Your task to perform on an android device: toggle translation in the chrome app Image 0: 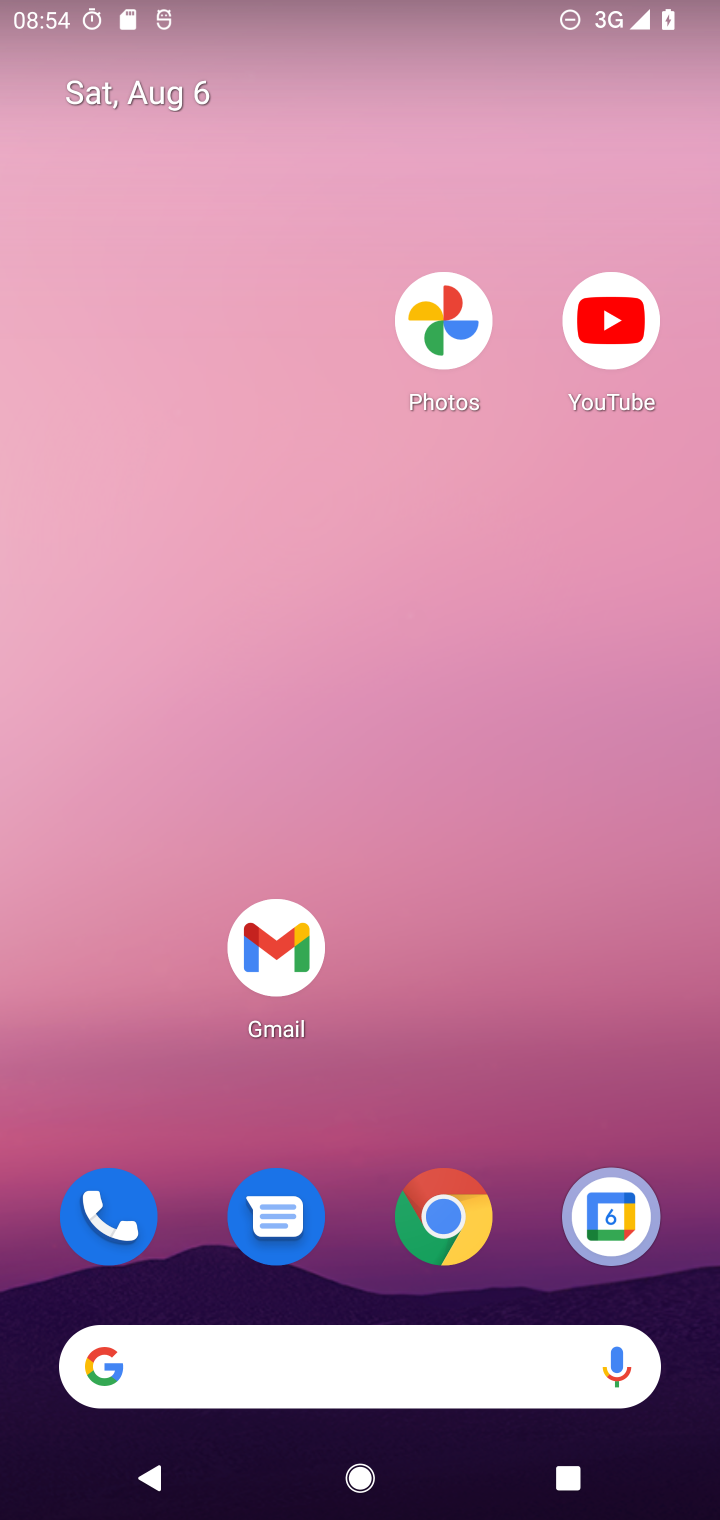
Step 0: drag from (424, 887) to (407, 86)
Your task to perform on an android device: toggle translation in the chrome app Image 1: 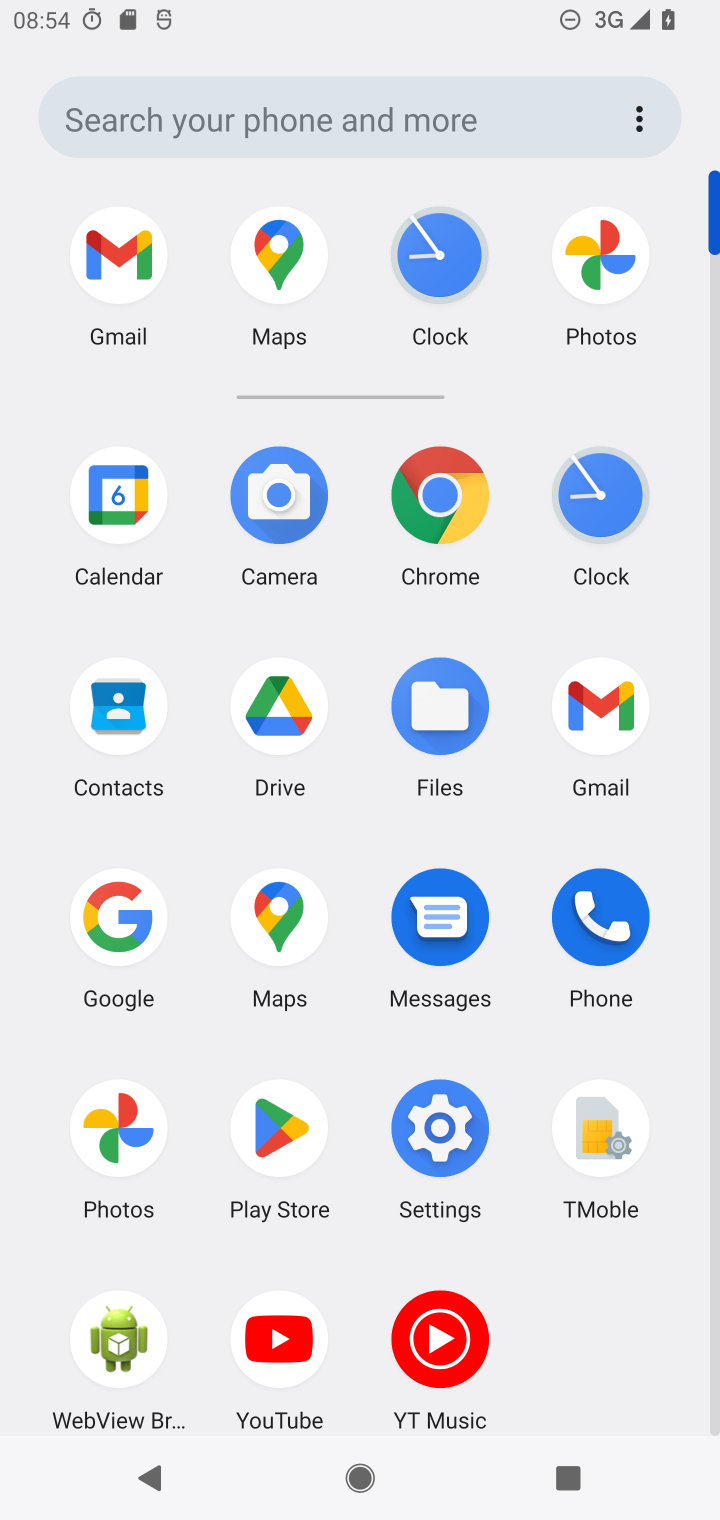
Step 1: click (447, 500)
Your task to perform on an android device: toggle translation in the chrome app Image 2: 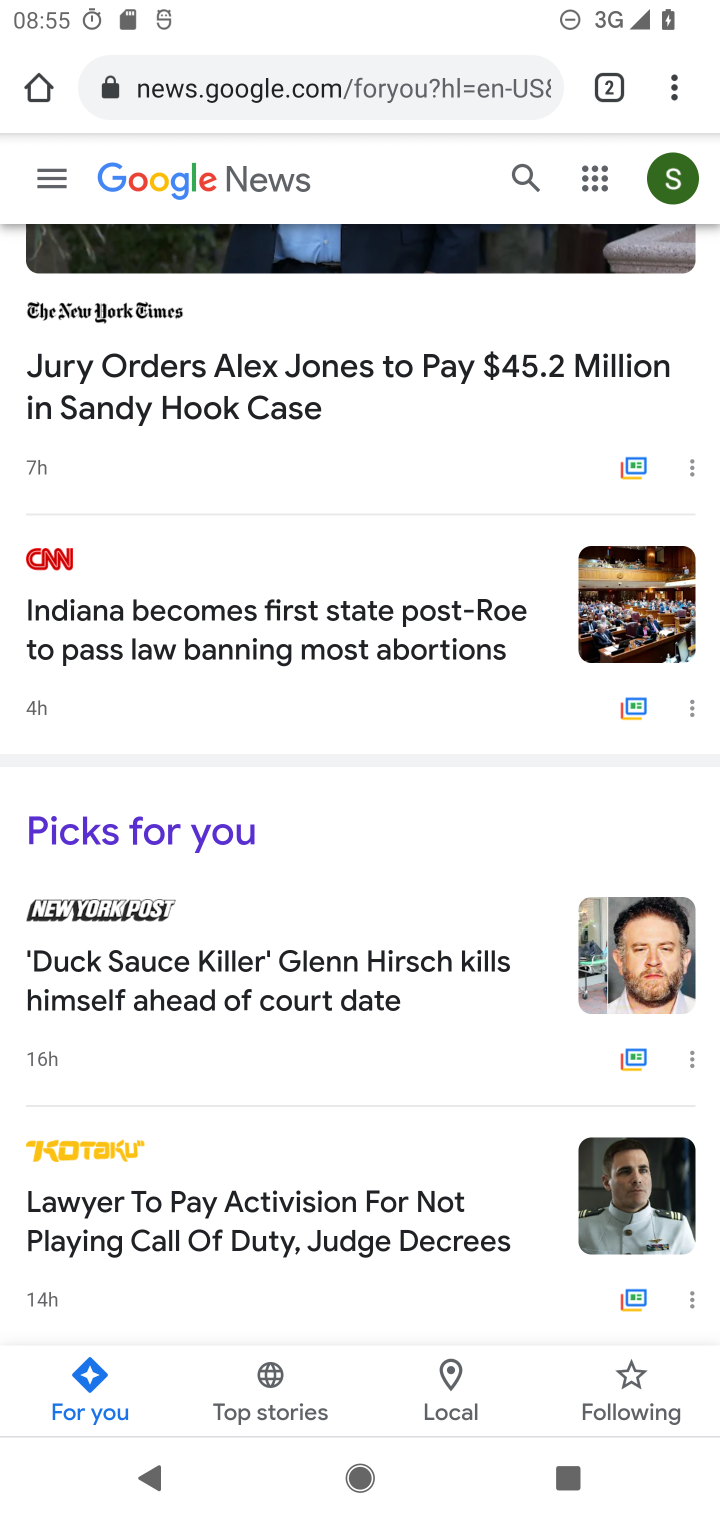
Step 2: drag from (683, 66) to (418, 1200)
Your task to perform on an android device: toggle translation in the chrome app Image 3: 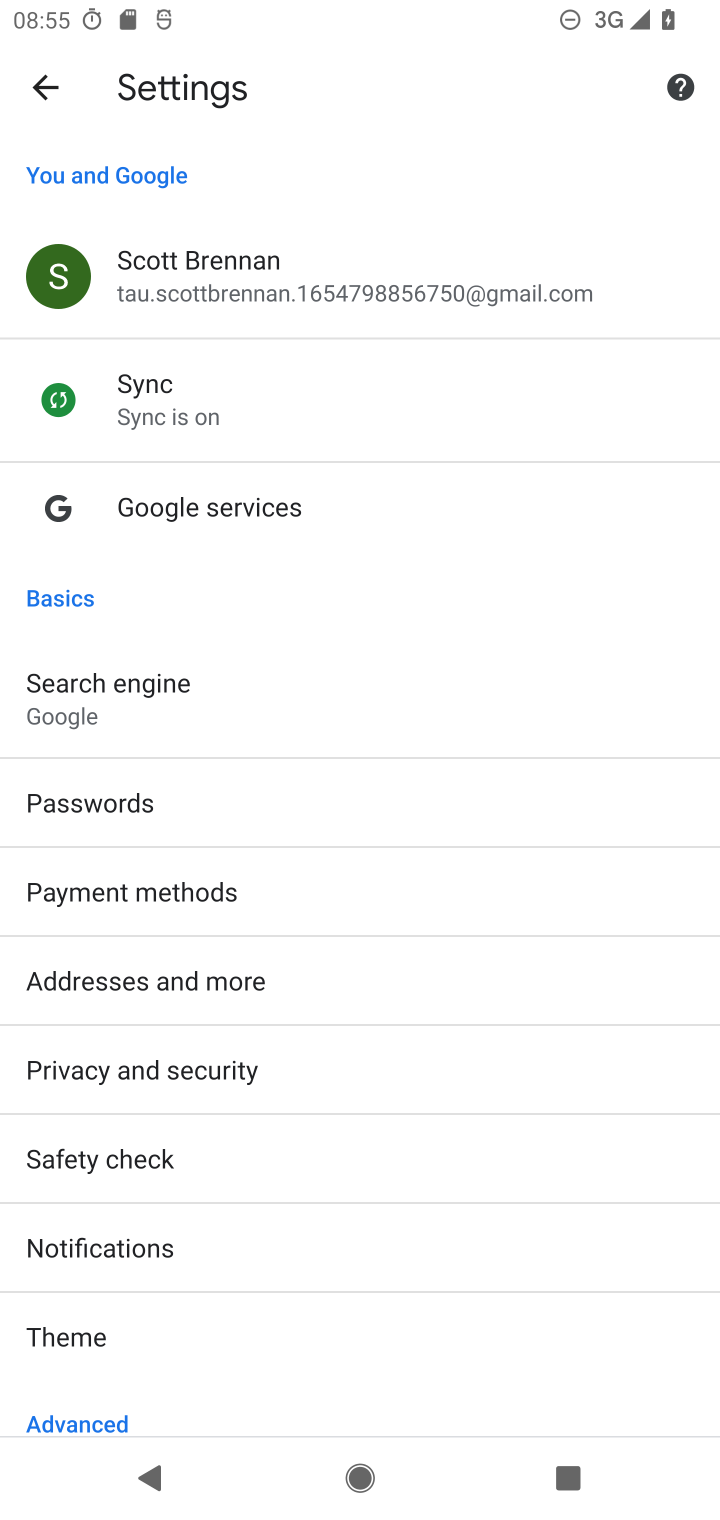
Step 3: drag from (311, 1356) to (509, 589)
Your task to perform on an android device: toggle translation in the chrome app Image 4: 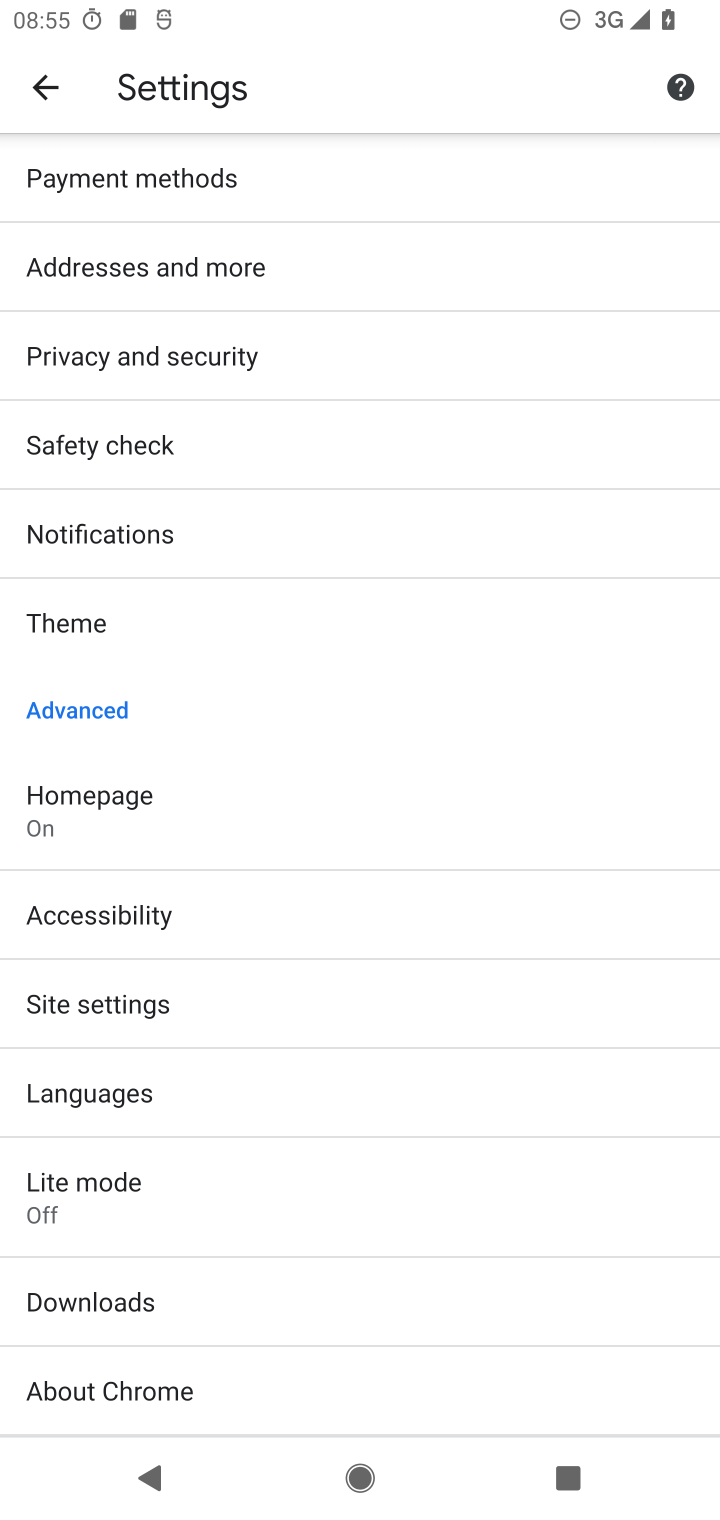
Step 4: click (106, 1098)
Your task to perform on an android device: toggle translation in the chrome app Image 5: 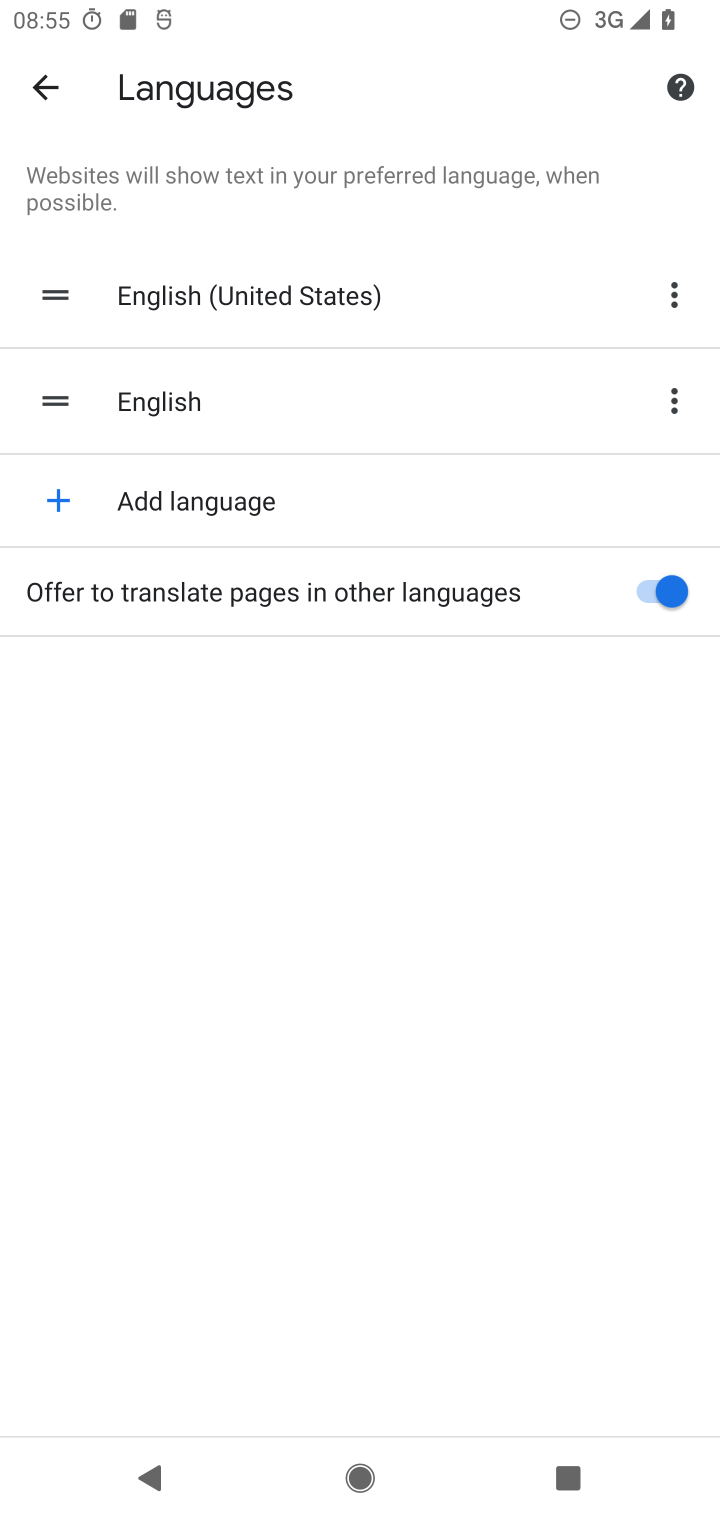
Step 5: click (670, 595)
Your task to perform on an android device: toggle translation in the chrome app Image 6: 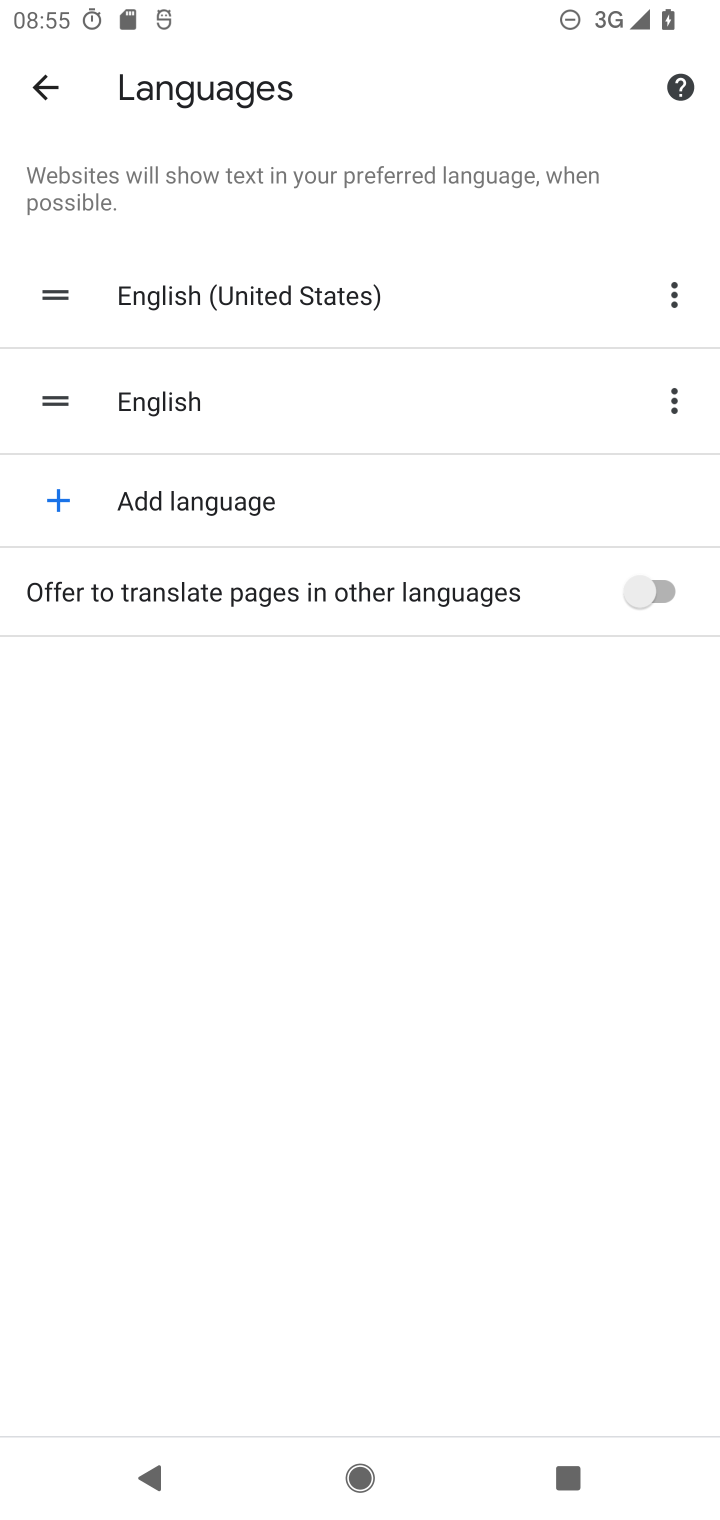
Step 6: task complete